Your task to perform on an android device: Open Youtube and go to "Your channel" Image 0: 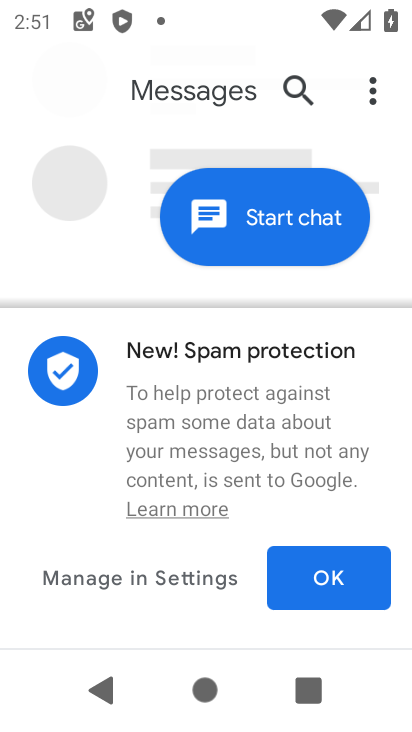
Step 0: drag from (220, 571) to (256, 141)
Your task to perform on an android device: Open Youtube and go to "Your channel" Image 1: 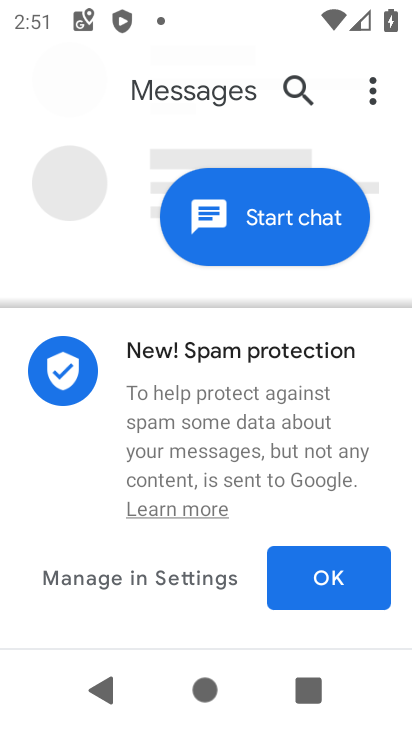
Step 1: press home button
Your task to perform on an android device: Open Youtube and go to "Your channel" Image 2: 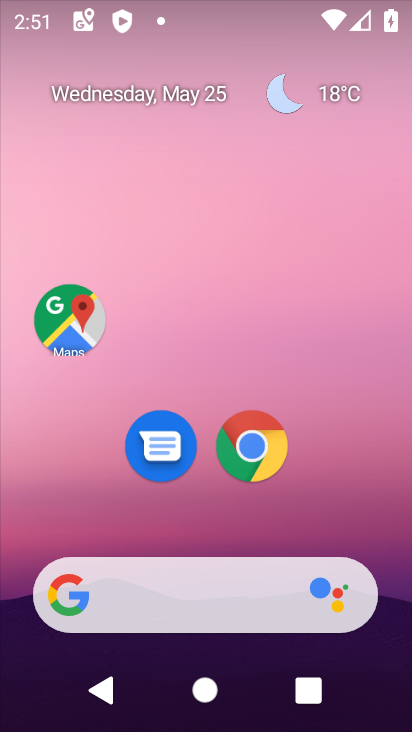
Step 2: drag from (223, 614) to (173, 47)
Your task to perform on an android device: Open Youtube and go to "Your channel" Image 3: 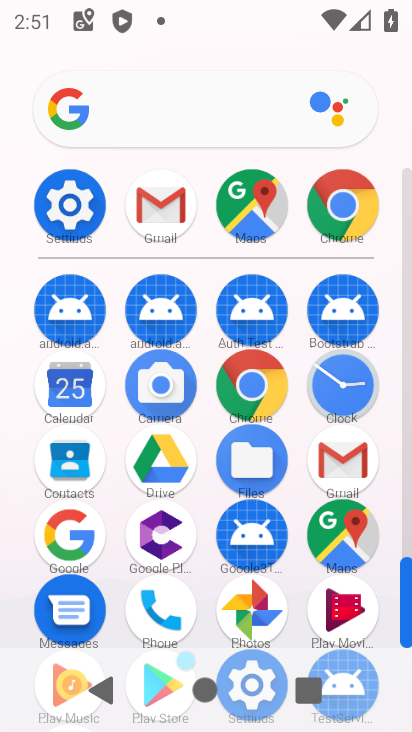
Step 3: drag from (298, 590) to (267, 173)
Your task to perform on an android device: Open Youtube and go to "Your channel" Image 4: 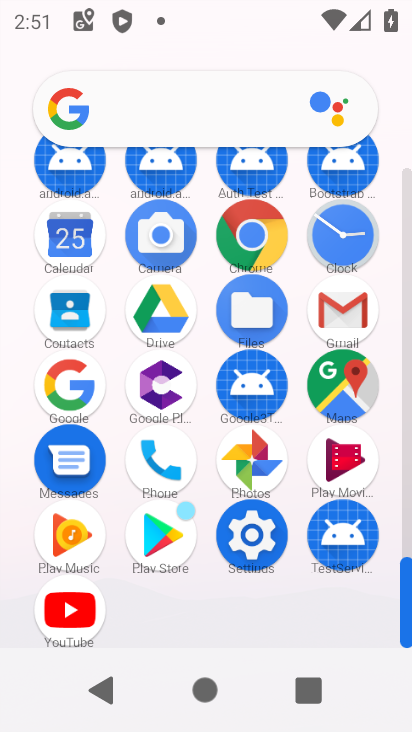
Step 4: click (44, 624)
Your task to perform on an android device: Open Youtube and go to "Your channel" Image 5: 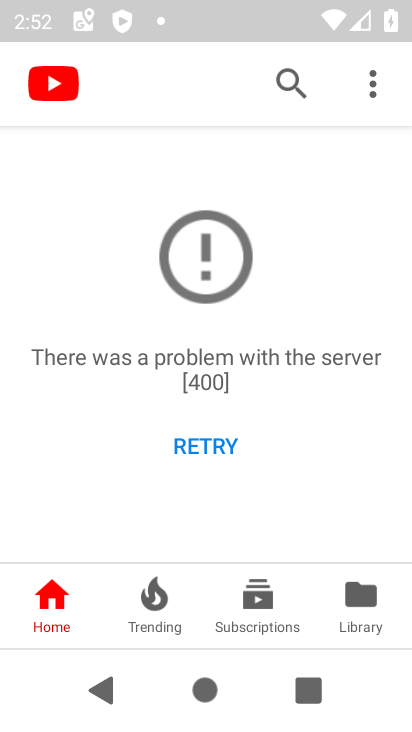
Step 5: task complete